Your task to perform on an android device: turn on translation in the chrome app Image 0: 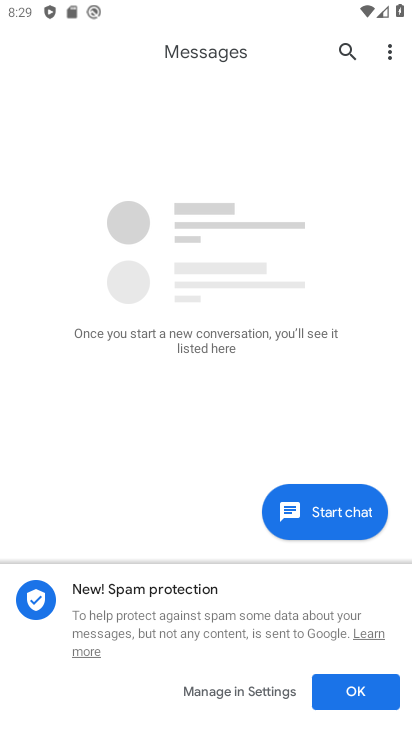
Step 0: press back button
Your task to perform on an android device: turn on translation in the chrome app Image 1: 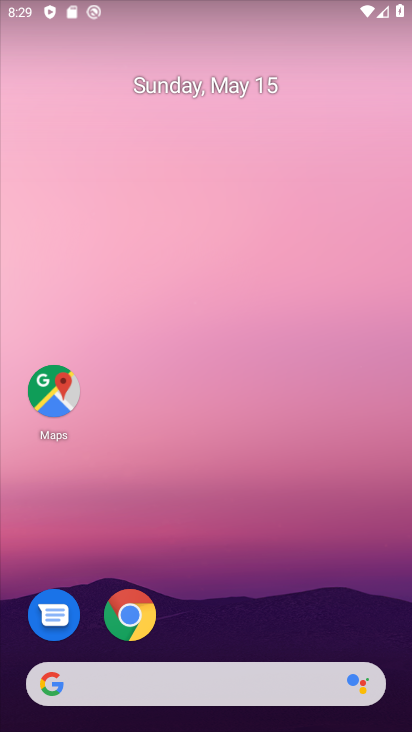
Step 1: drag from (286, 414) to (294, 31)
Your task to perform on an android device: turn on translation in the chrome app Image 2: 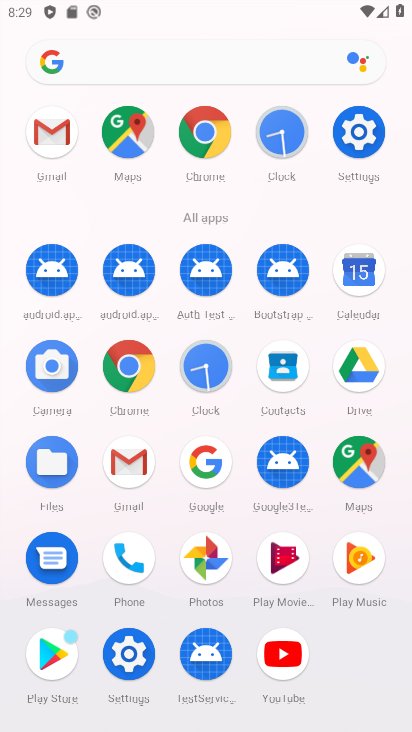
Step 2: click (205, 130)
Your task to perform on an android device: turn on translation in the chrome app Image 3: 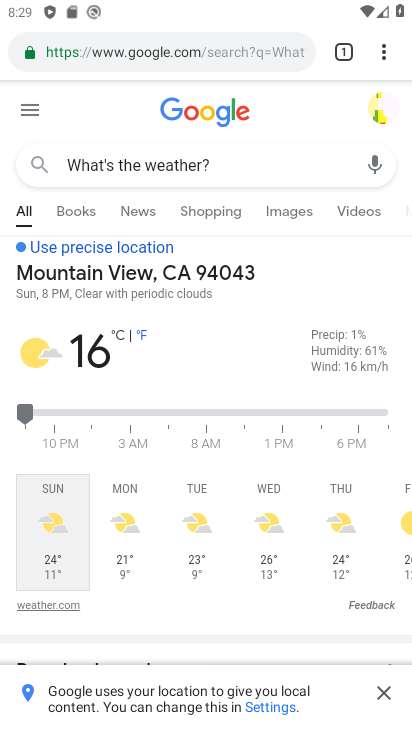
Step 3: drag from (382, 54) to (221, 584)
Your task to perform on an android device: turn on translation in the chrome app Image 4: 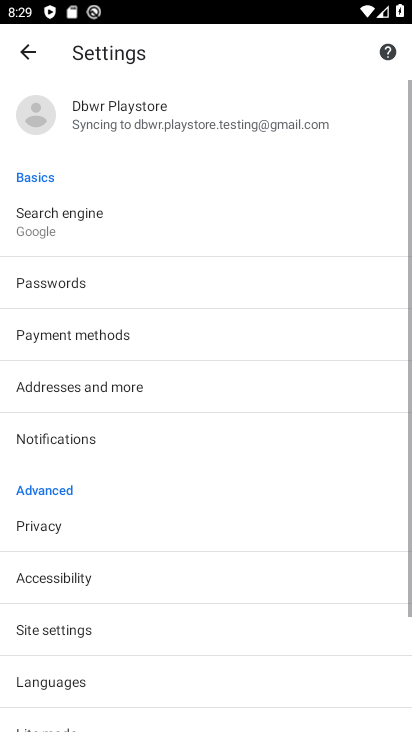
Step 4: drag from (157, 504) to (186, 221)
Your task to perform on an android device: turn on translation in the chrome app Image 5: 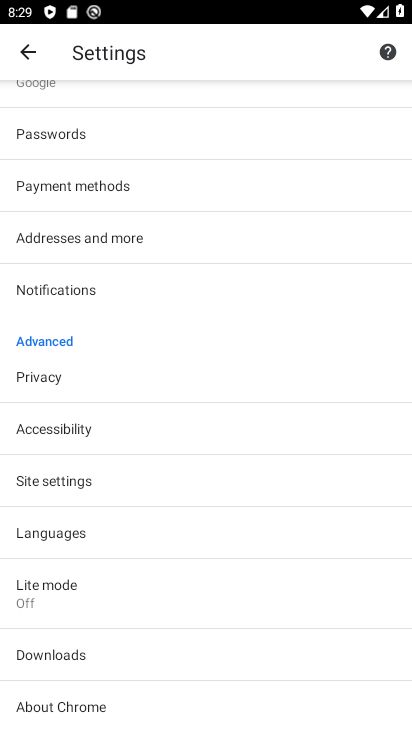
Step 5: click (86, 536)
Your task to perform on an android device: turn on translation in the chrome app Image 6: 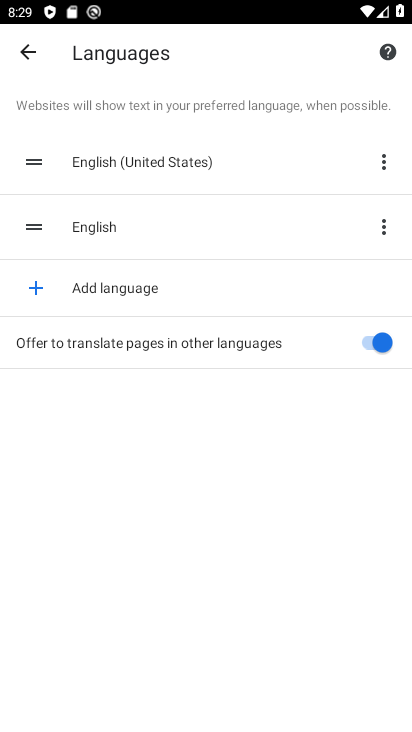
Step 6: task complete